Your task to perform on an android device: all mails in gmail Image 0: 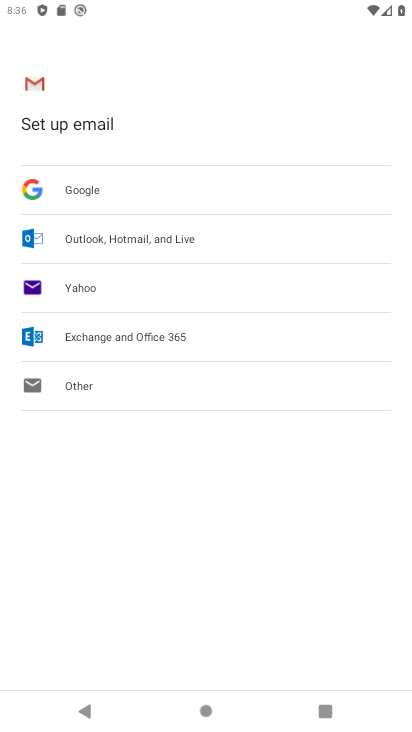
Step 0: press back button
Your task to perform on an android device: all mails in gmail Image 1: 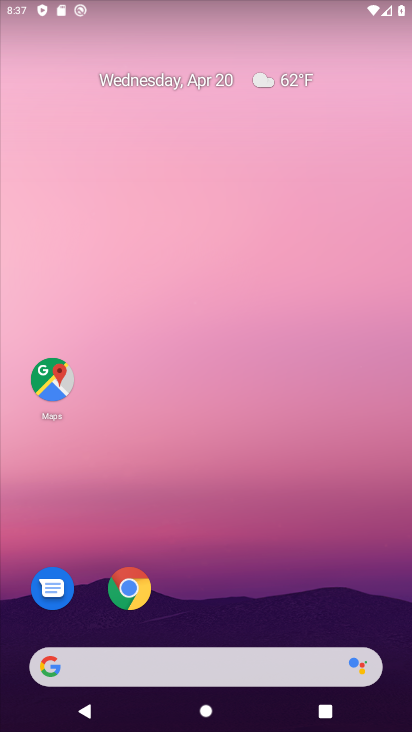
Step 1: drag from (284, 595) to (160, 31)
Your task to perform on an android device: all mails in gmail Image 2: 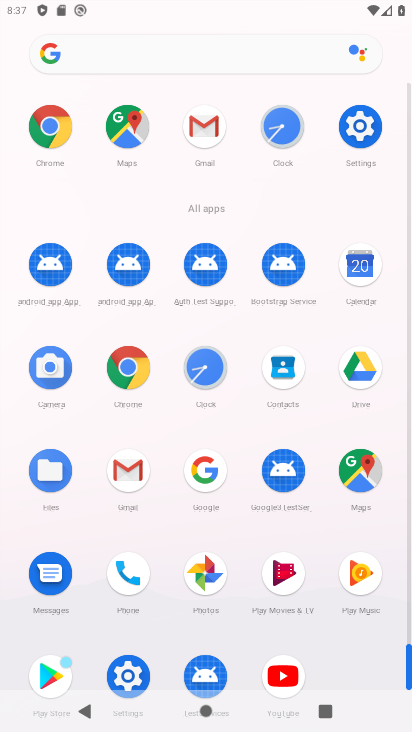
Step 2: click (204, 125)
Your task to perform on an android device: all mails in gmail Image 3: 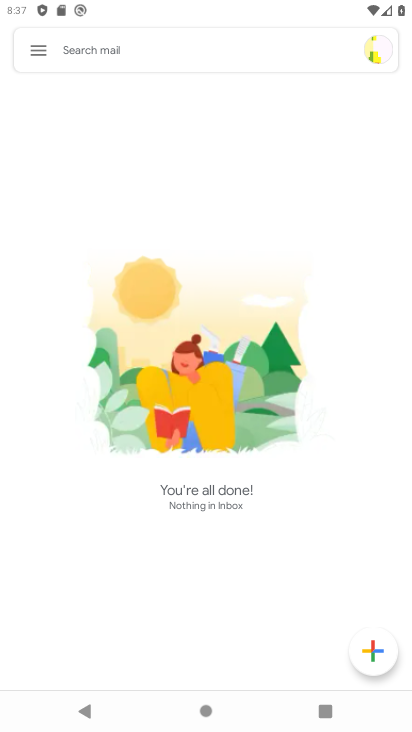
Step 3: click (29, 38)
Your task to perform on an android device: all mails in gmail Image 4: 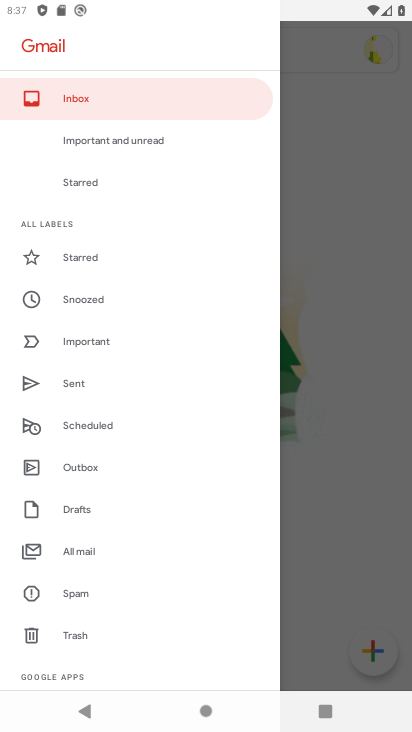
Step 4: click (92, 551)
Your task to perform on an android device: all mails in gmail Image 5: 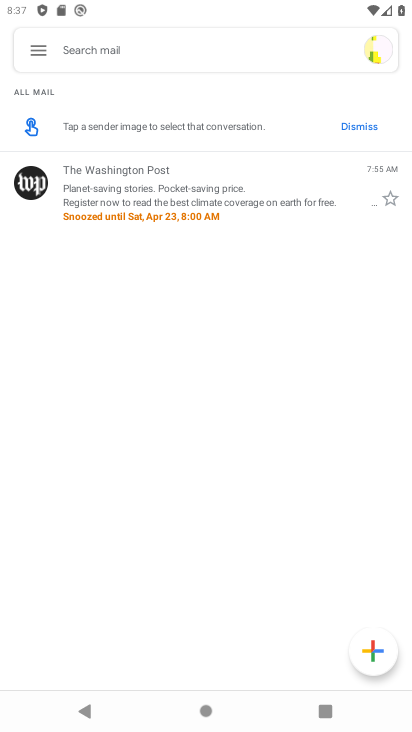
Step 5: task complete